Your task to perform on an android device: all mails in gmail Image 0: 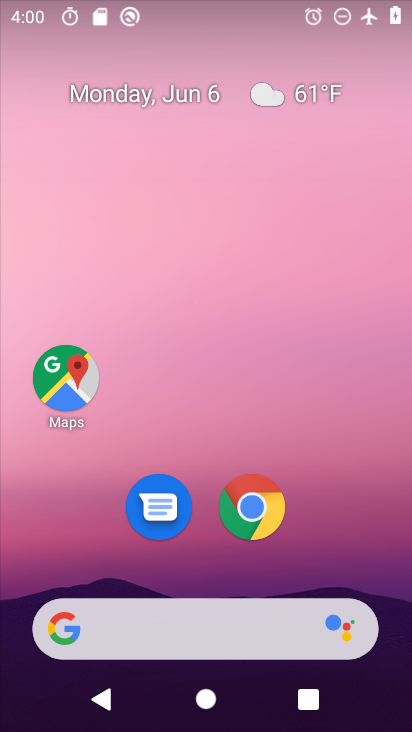
Step 0: drag from (195, 587) to (209, 198)
Your task to perform on an android device: all mails in gmail Image 1: 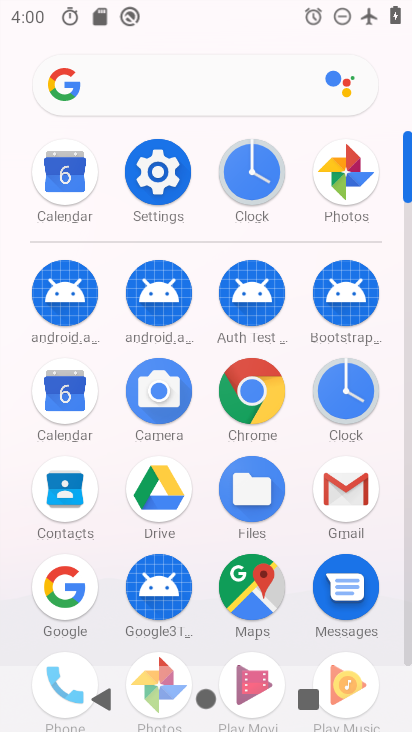
Step 1: click (345, 494)
Your task to perform on an android device: all mails in gmail Image 2: 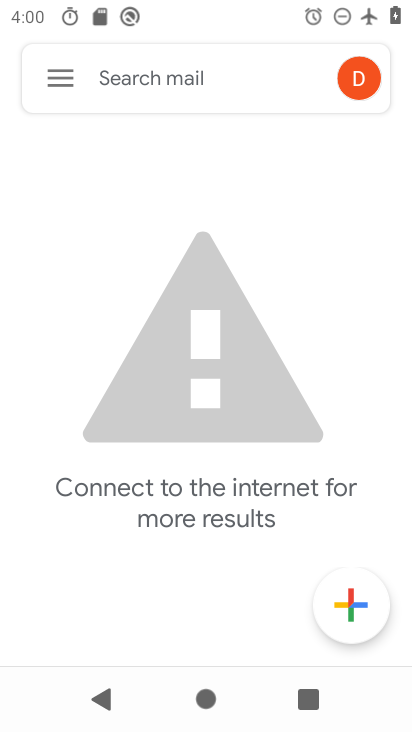
Step 2: click (51, 92)
Your task to perform on an android device: all mails in gmail Image 3: 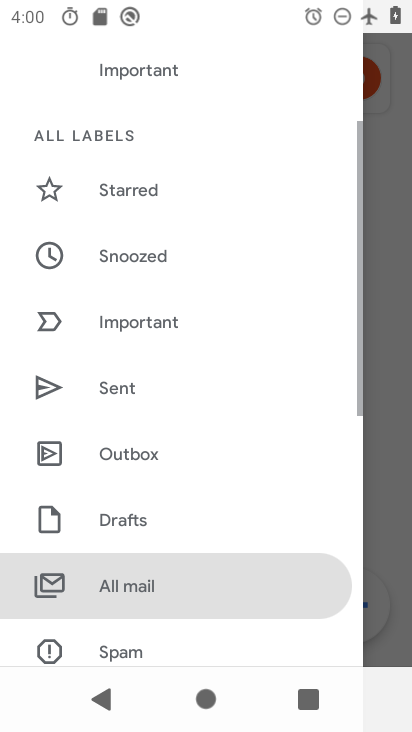
Step 3: click (144, 576)
Your task to perform on an android device: all mails in gmail Image 4: 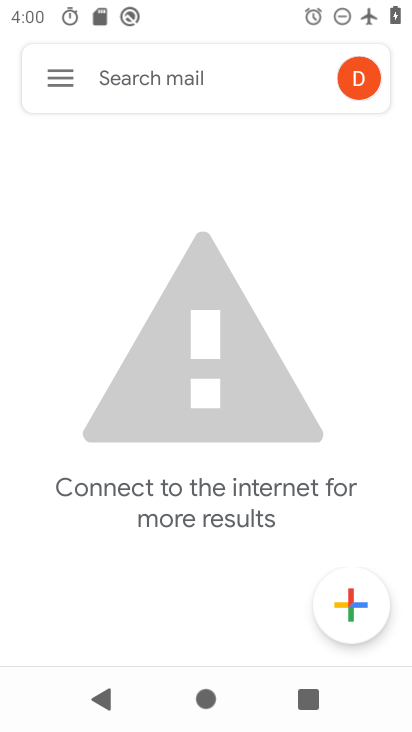
Step 4: task complete